Your task to perform on an android device: open app "Airtel Thanks" Image 0: 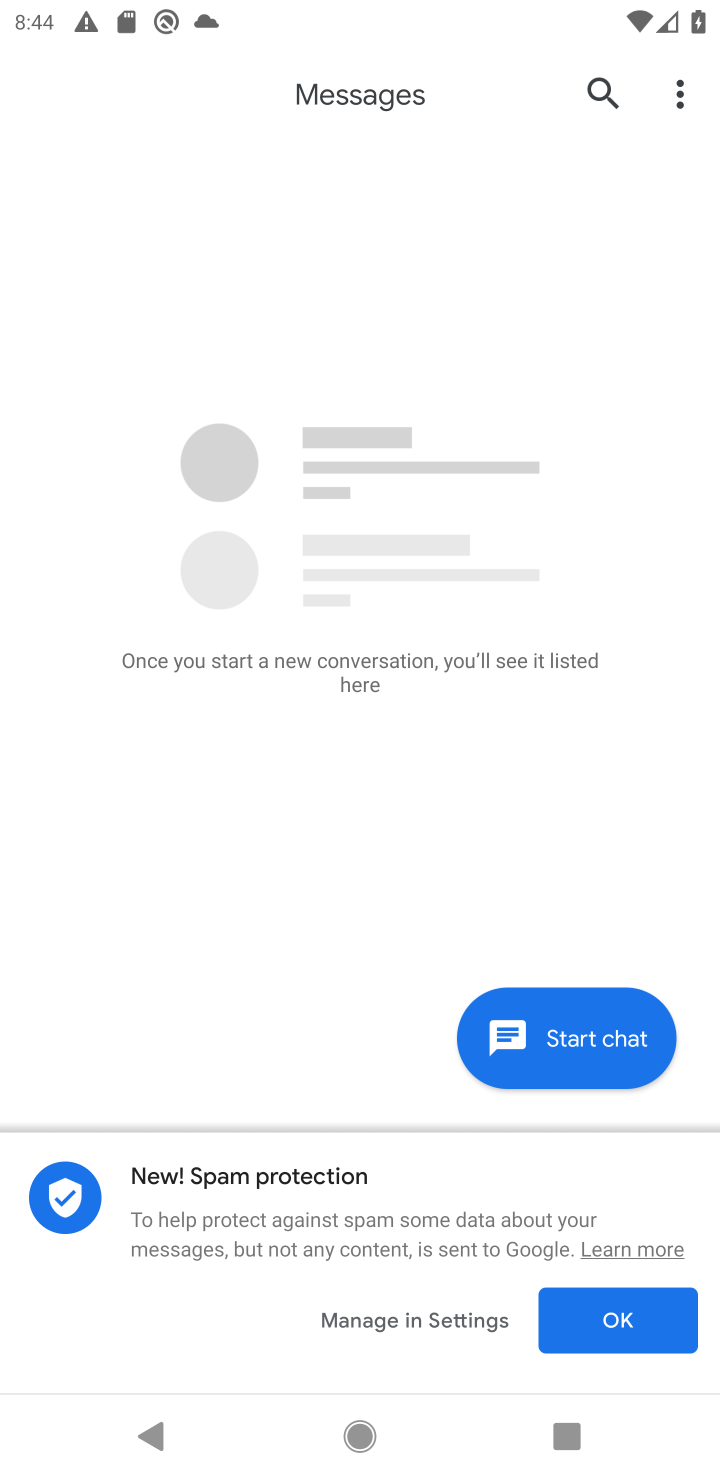
Step 0: press back button
Your task to perform on an android device: open app "Airtel Thanks" Image 1: 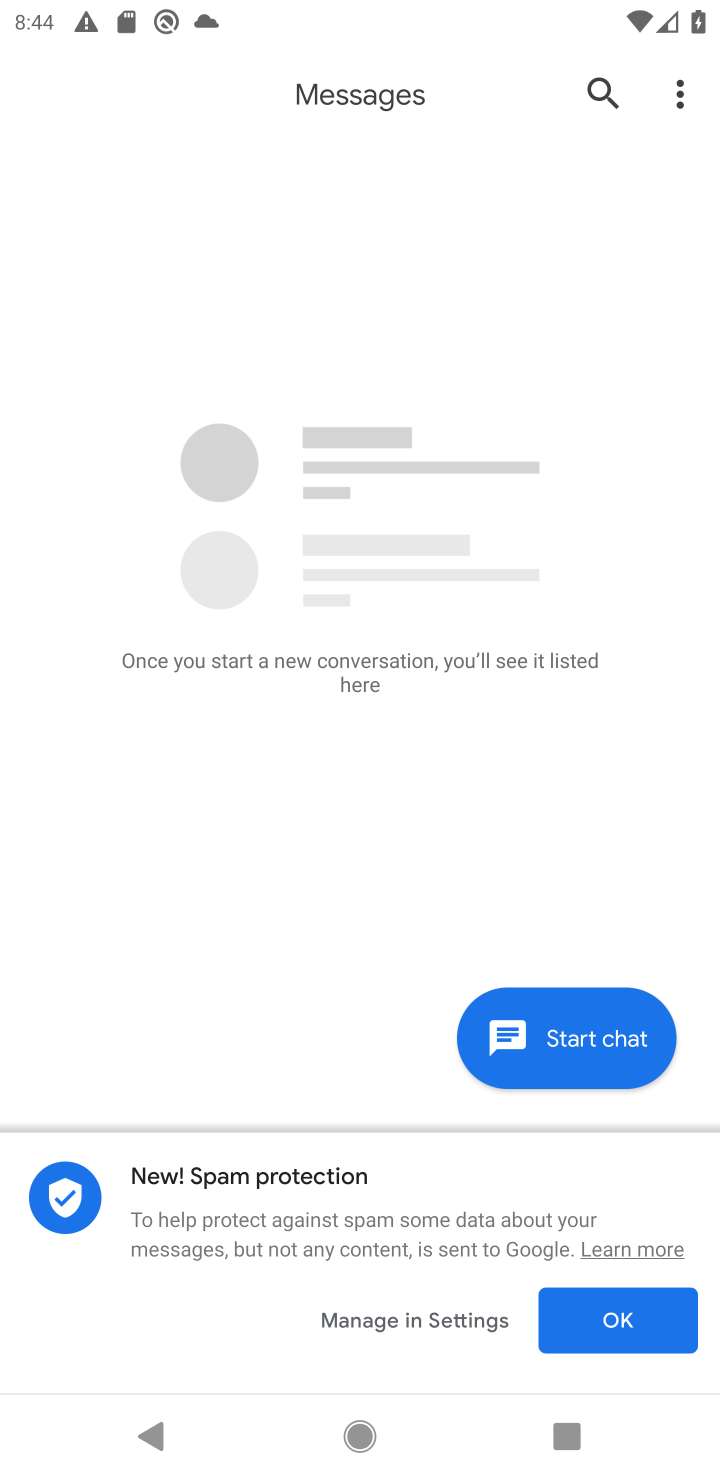
Step 1: press home button
Your task to perform on an android device: open app "Airtel Thanks" Image 2: 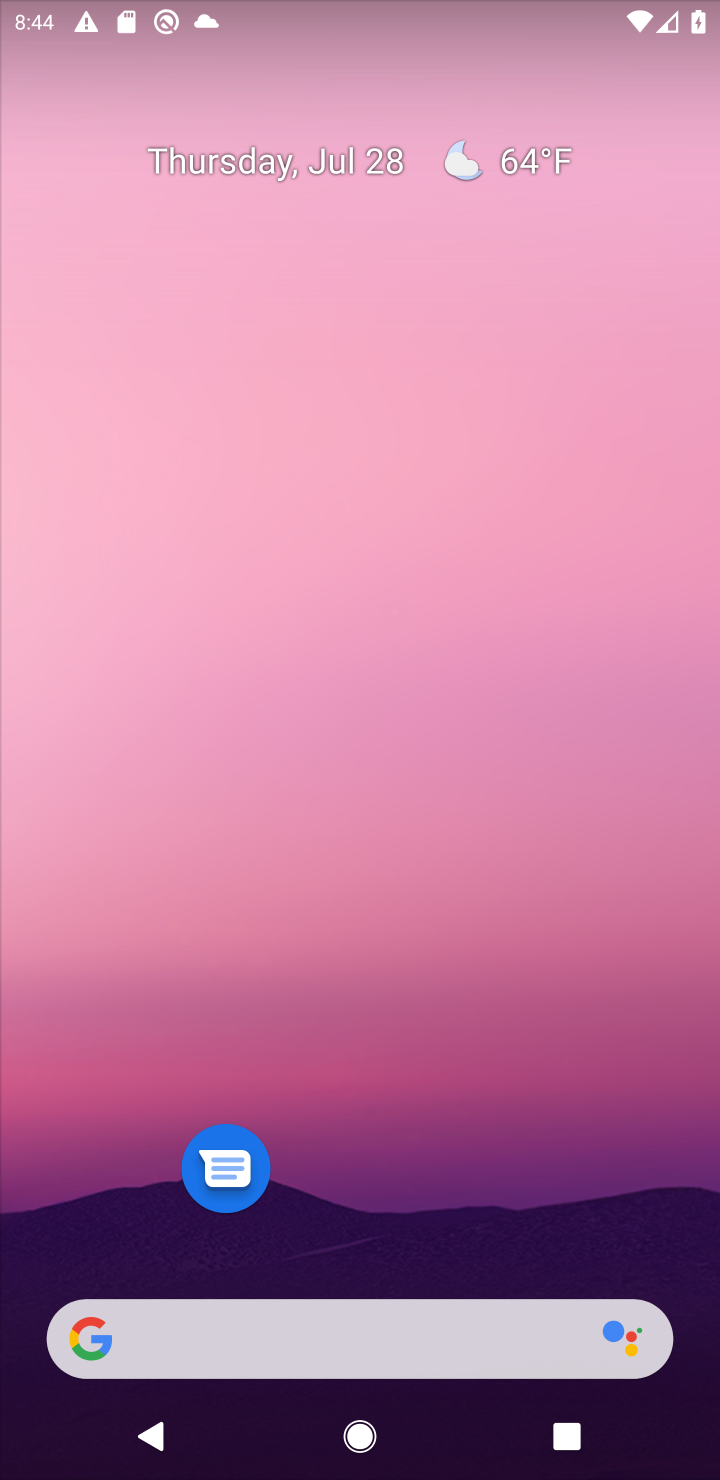
Step 2: drag from (473, 1338) to (660, 238)
Your task to perform on an android device: open app "Airtel Thanks" Image 3: 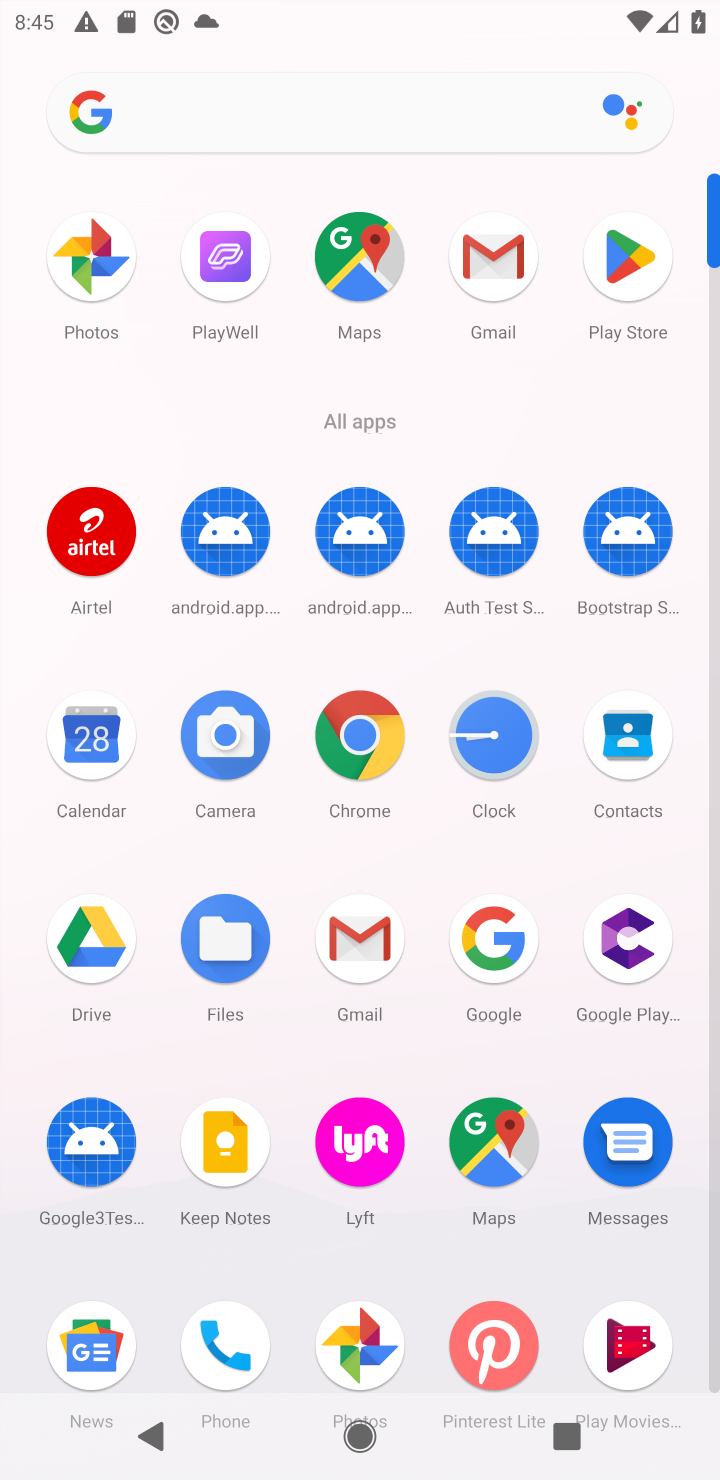
Step 3: click (633, 263)
Your task to perform on an android device: open app "Airtel Thanks" Image 4: 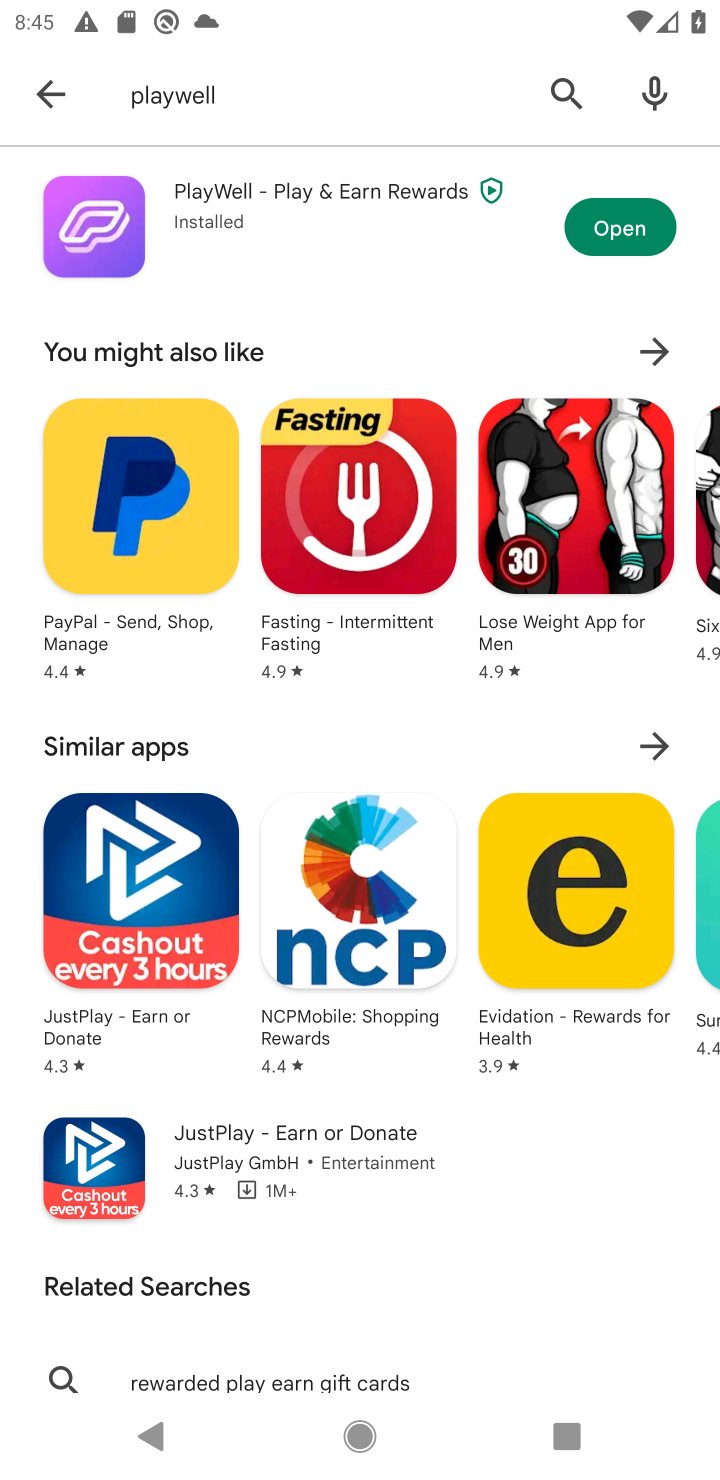
Step 4: click (557, 83)
Your task to perform on an android device: open app "Airtel Thanks" Image 5: 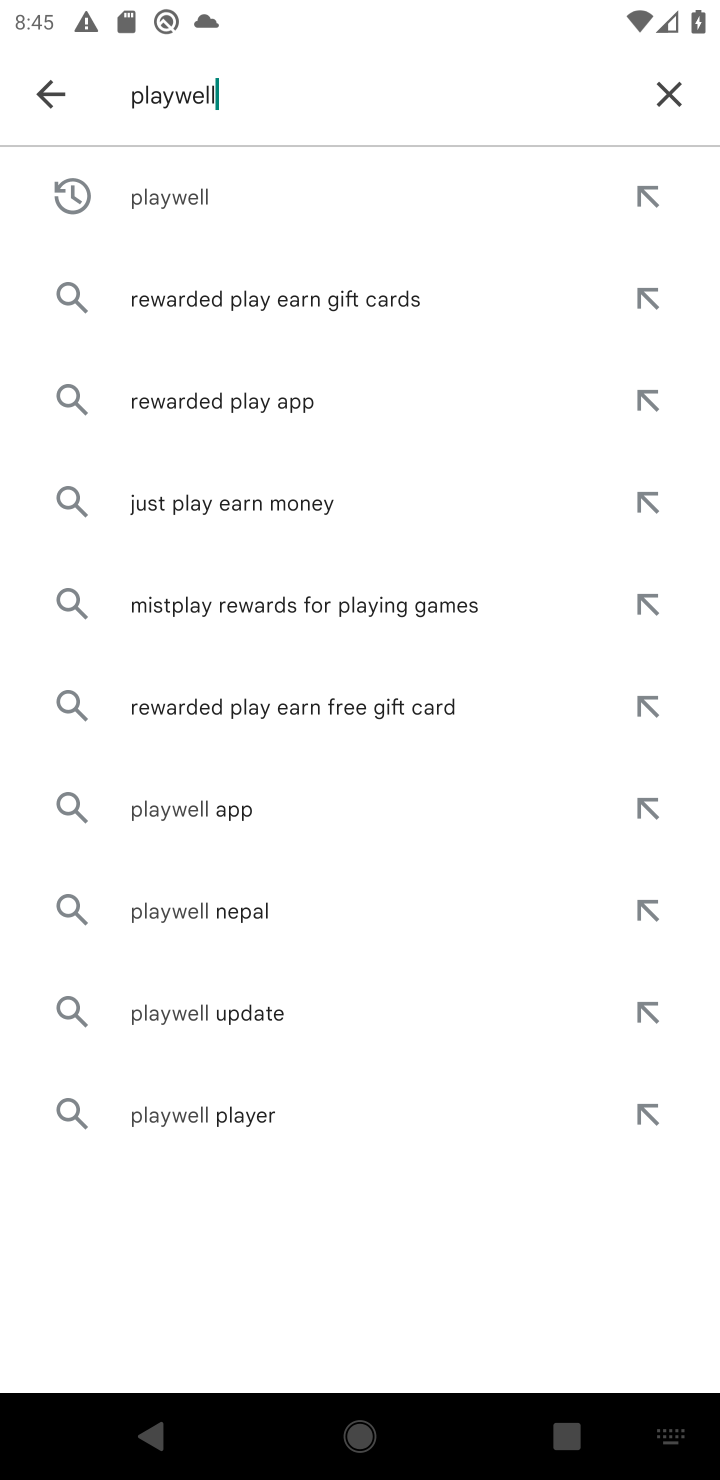
Step 5: click (659, 83)
Your task to perform on an android device: open app "Airtel Thanks" Image 6: 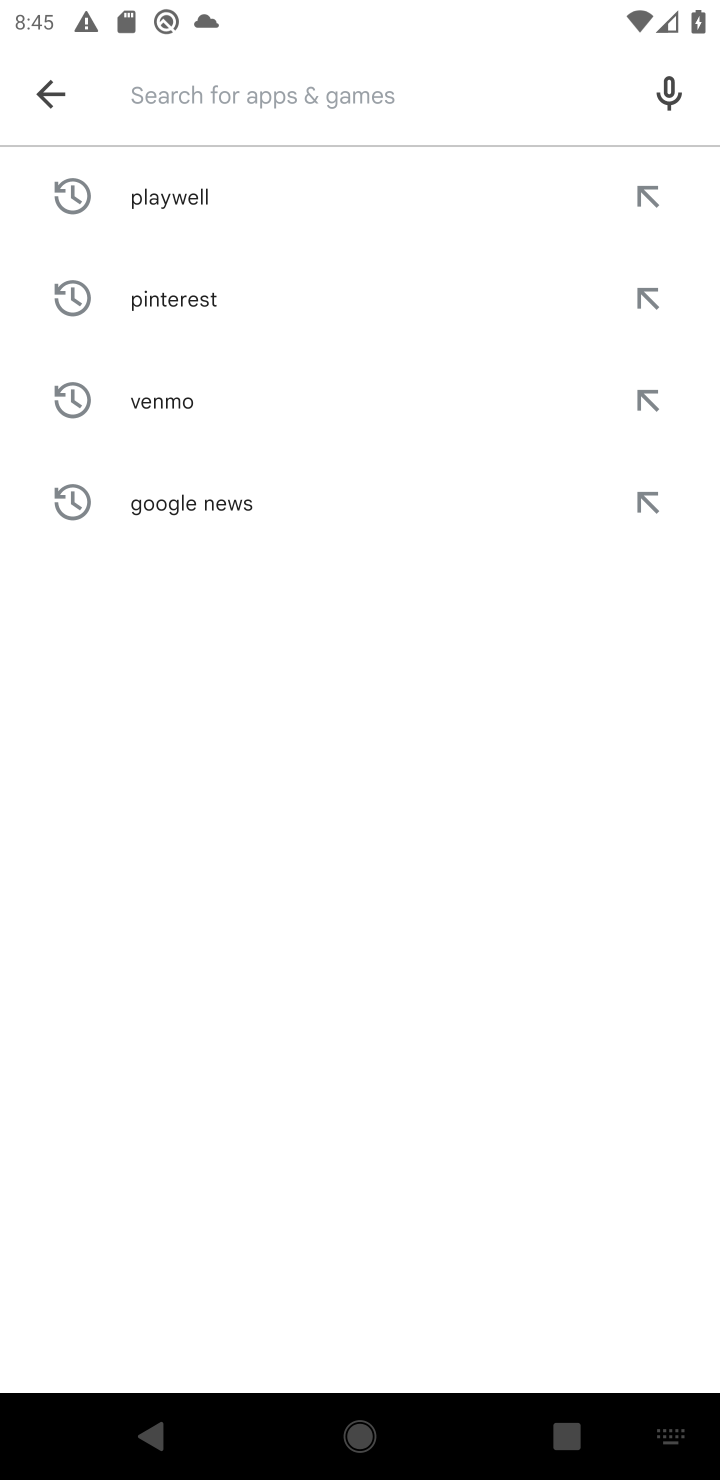
Step 6: type "airtel thanks"
Your task to perform on an android device: open app "Airtel Thanks" Image 7: 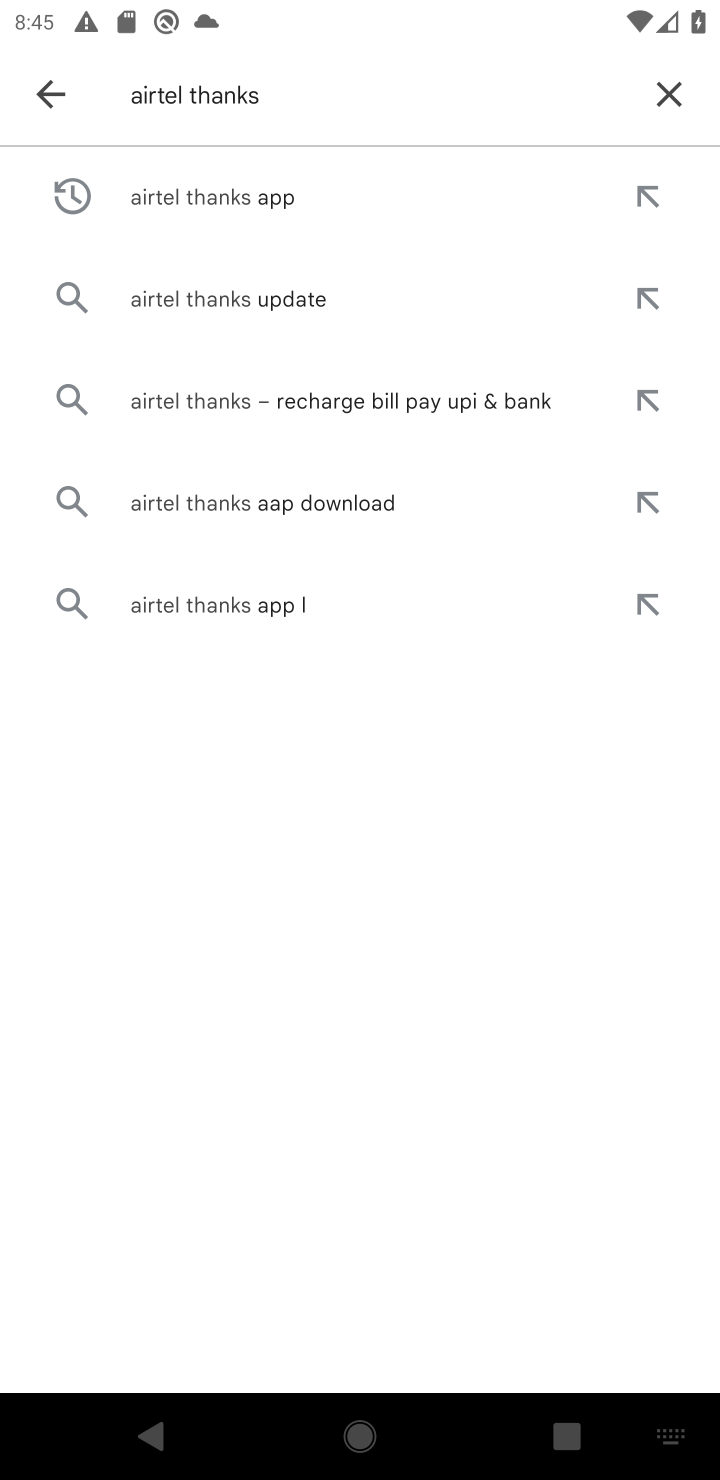
Step 7: click (221, 197)
Your task to perform on an android device: open app "Airtel Thanks" Image 8: 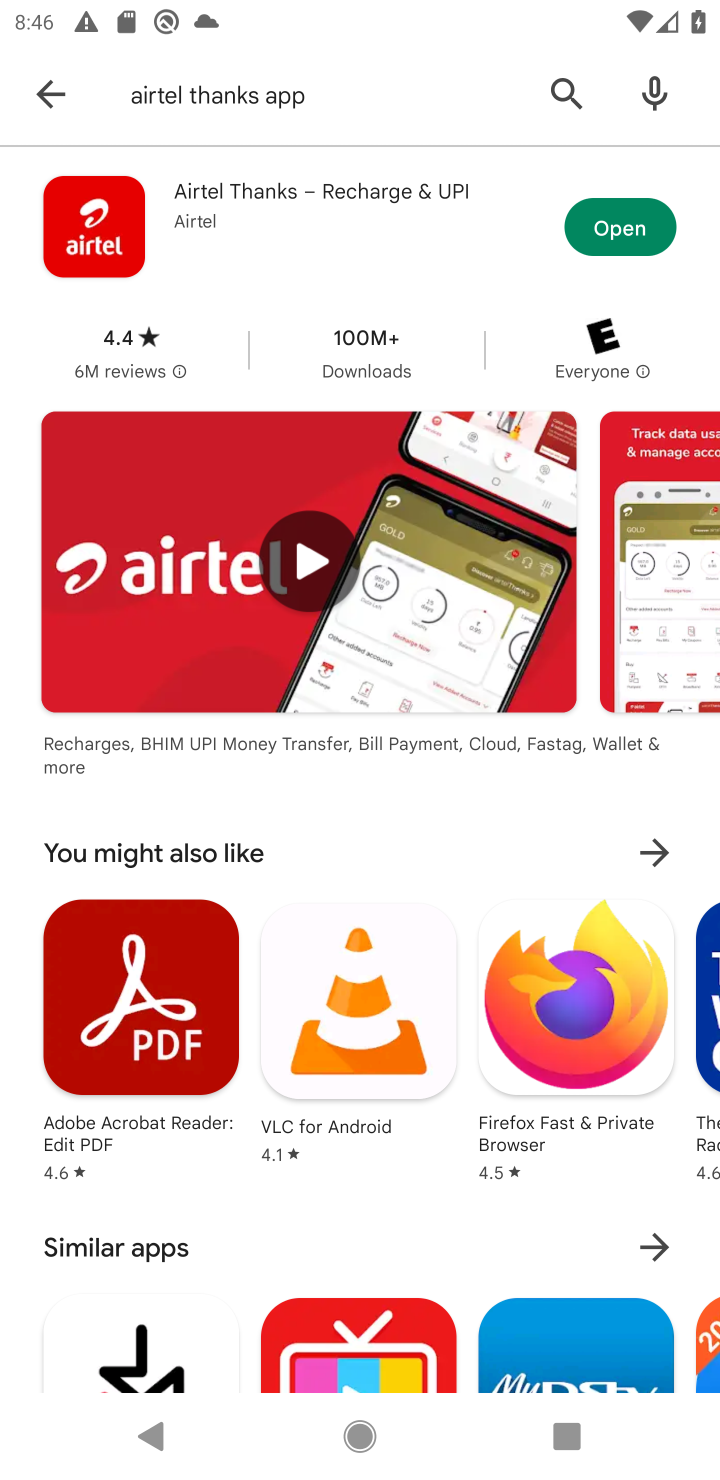
Step 8: click (636, 241)
Your task to perform on an android device: open app "Airtel Thanks" Image 9: 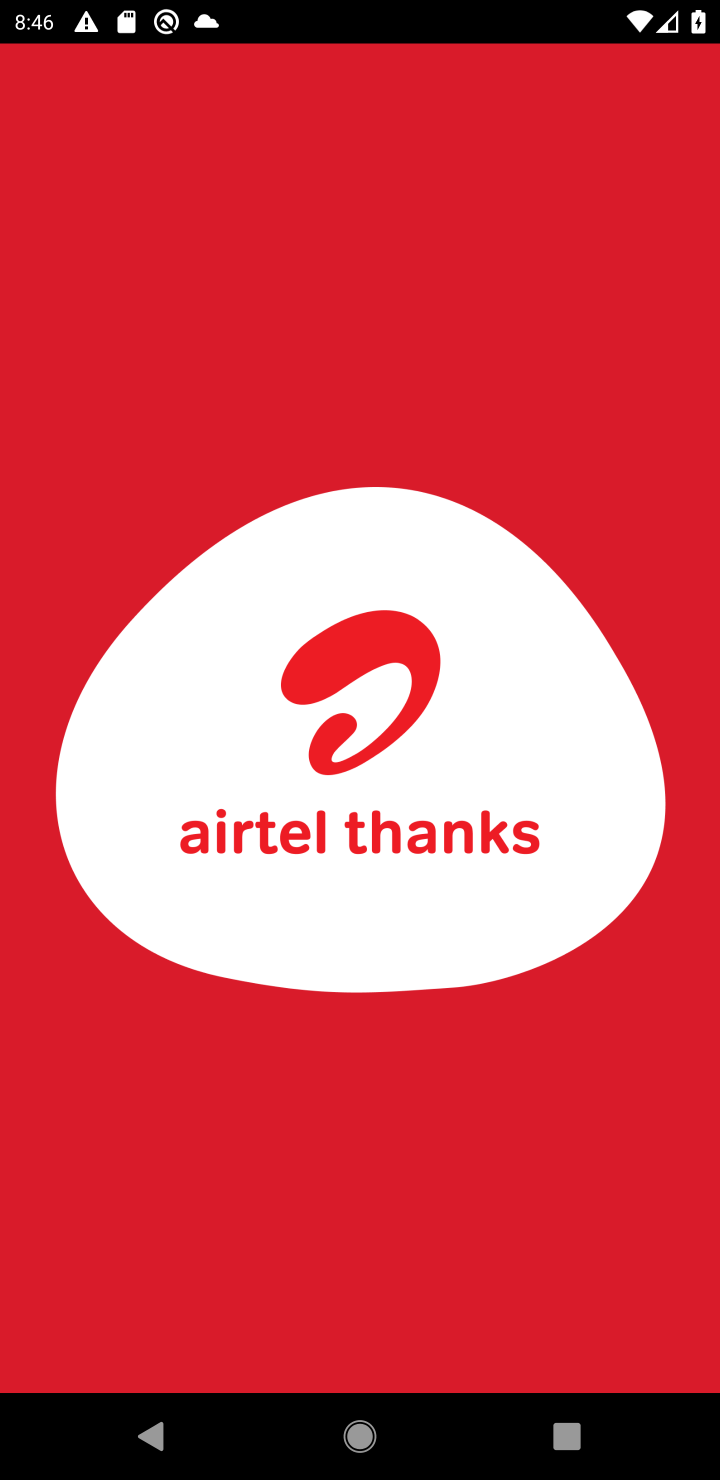
Step 9: task complete